Your task to perform on an android device: Open calendar and show me the first week of next month Image 0: 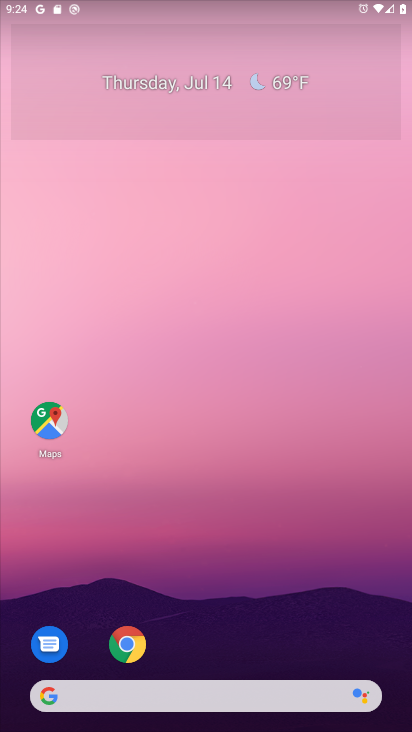
Step 0: click (150, 72)
Your task to perform on an android device: Open calendar and show me the first week of next month Image 1: 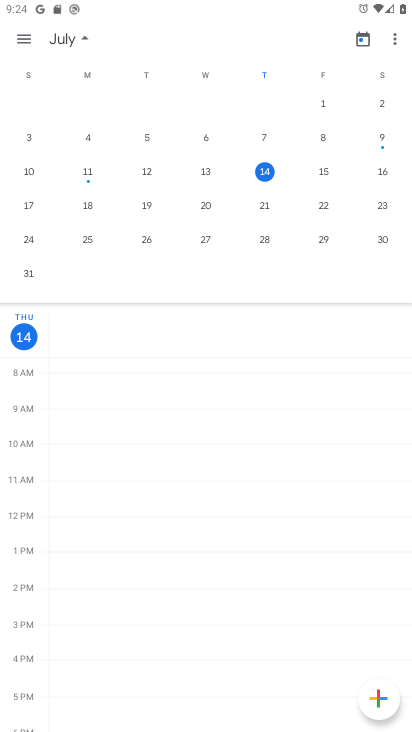
Step 1: drag from (361, 257) to (47, 289)
Your task to perform on an android device: Open calendar and show me the first week of next month Image 2: 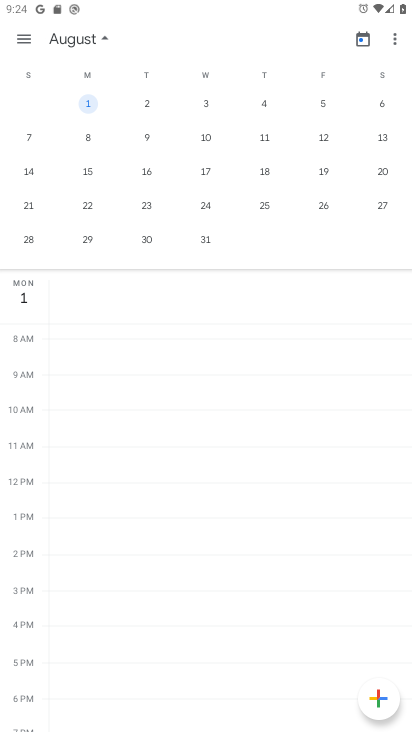
Step 2: click (214, 180)
Your task to perform on an android device: Open calendar and show me the first week of next month Image 3: 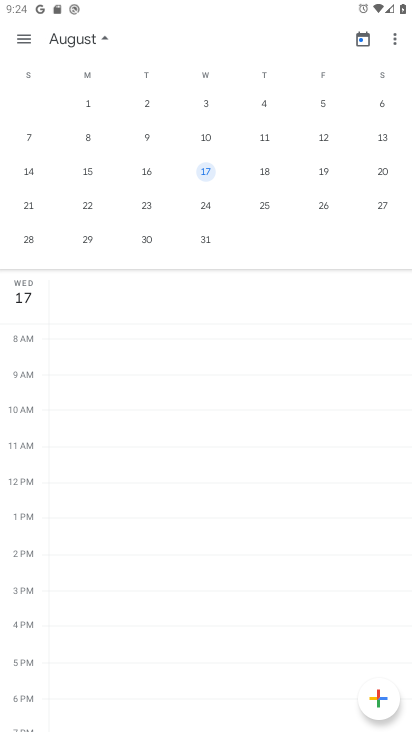
Step 3: task complete